Your task to perform on an android device: Go to network settings Image 0: 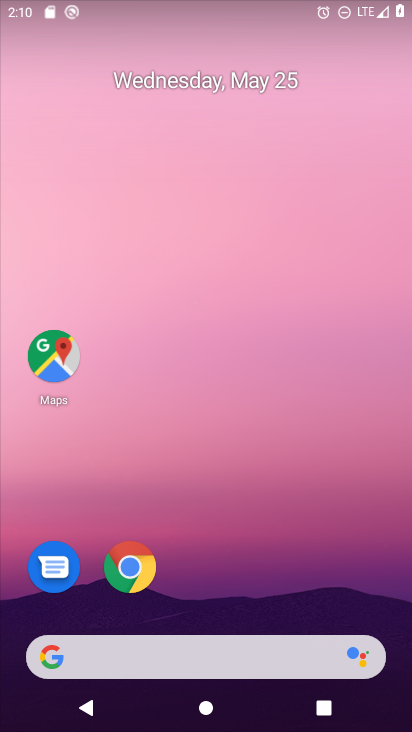
Step 0: drag from (393, 689) to (392, 263)
Your task to perform on an android device: Go to network settings Image 1: 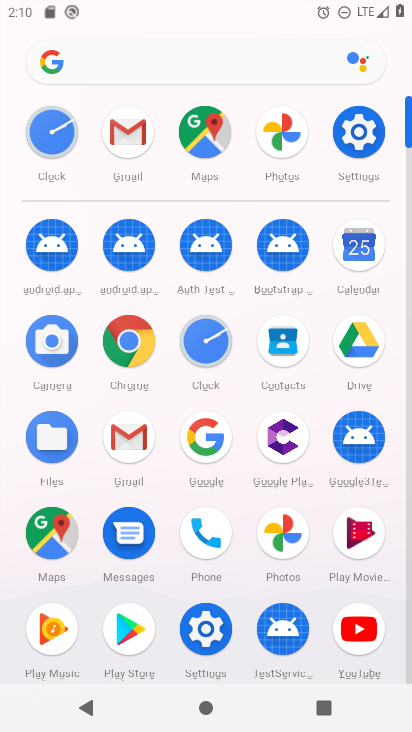
Step 1: click (354, 127)
Your task to perform on an android device: Go to network settings Image 2: 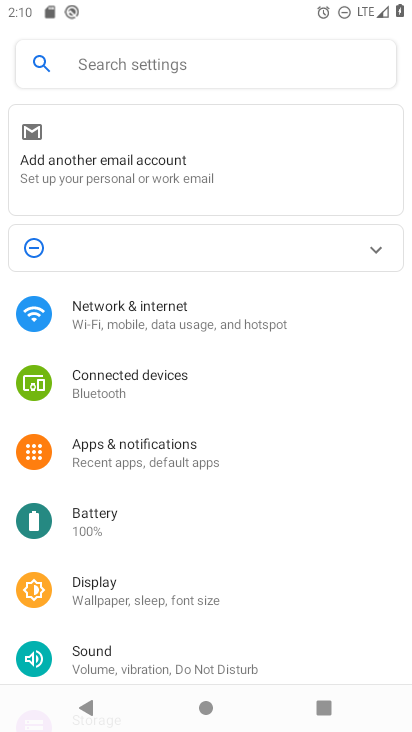
Step 2: click (151, 331)
Your task to perform on an android device: Go to network settings Image 3: 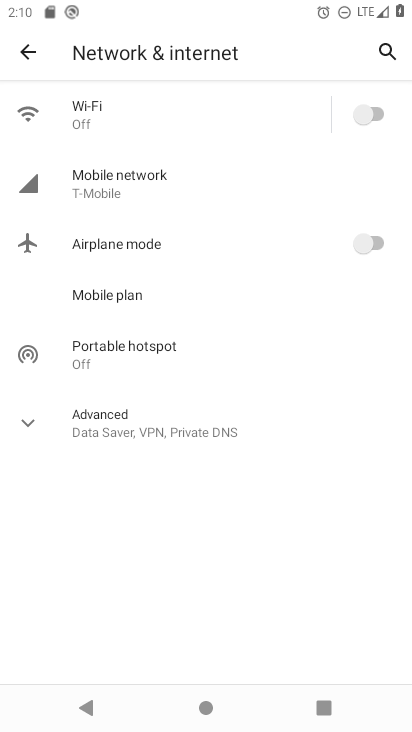
Step 3: click (140, 182)
Your task to perform on an android device: Go to network settings Image 4: 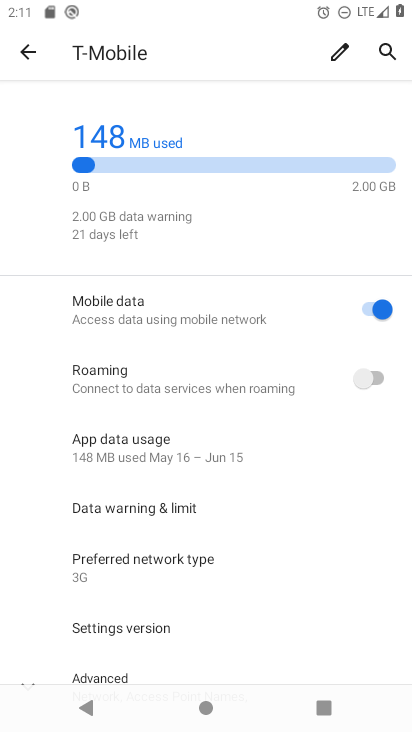
Step 4: task complete